Your task to perform on an android device: check battery use Image 0: 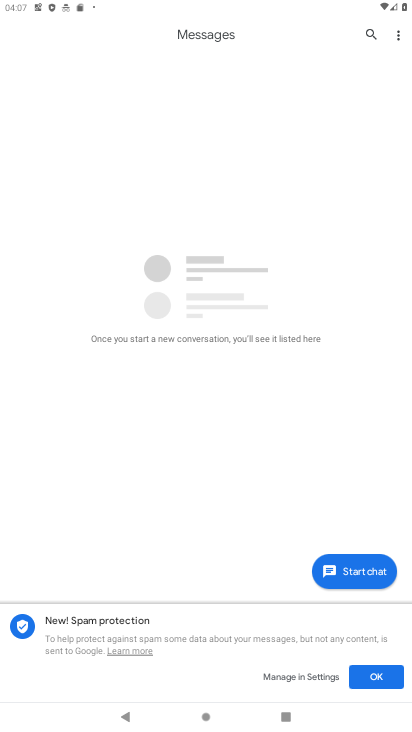
Step 0: press home button
Your task to perform on an android device: check battery use Image 1: 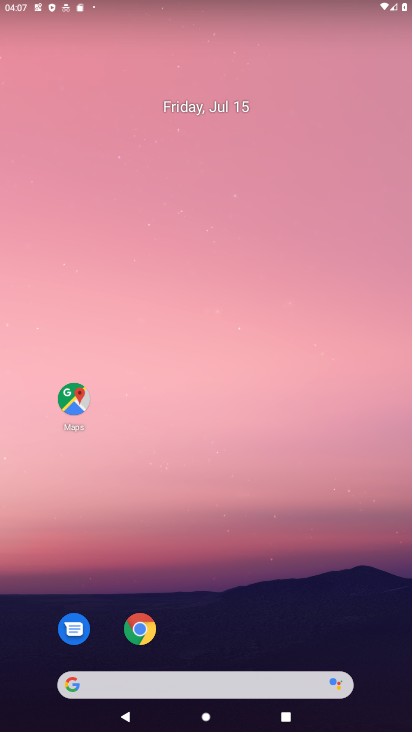
Step 1: drag from (258, 621) to (239, 4)
Your task to perform on an android device: check battery use Image 2: 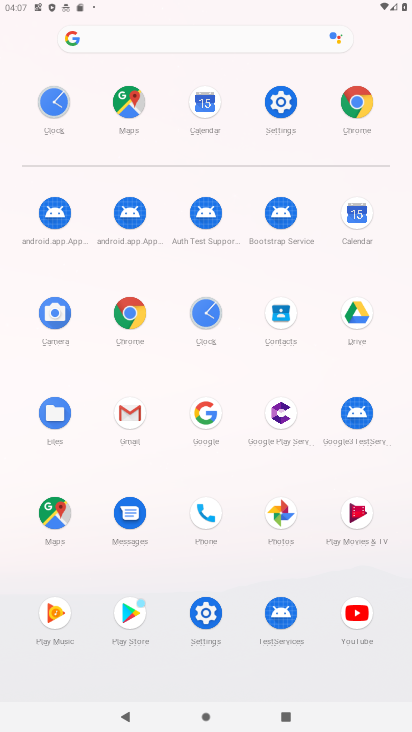
Step 2: click (212, 610)
Your task to perform on an android device: check battery use Image 3: 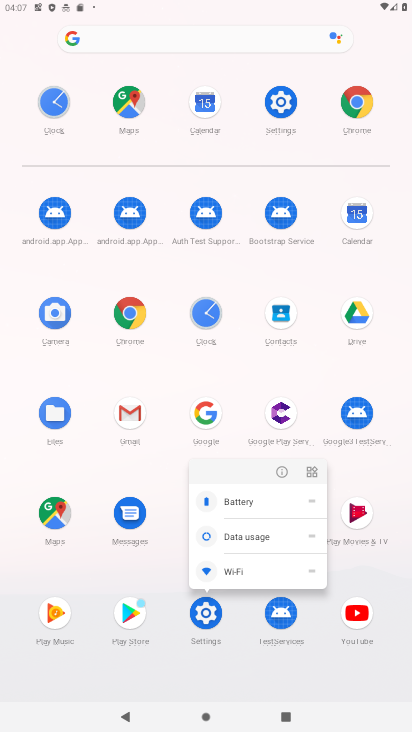
Step 3: click (193, 610)
Your task to perform on an android device: check battery use Image 4: 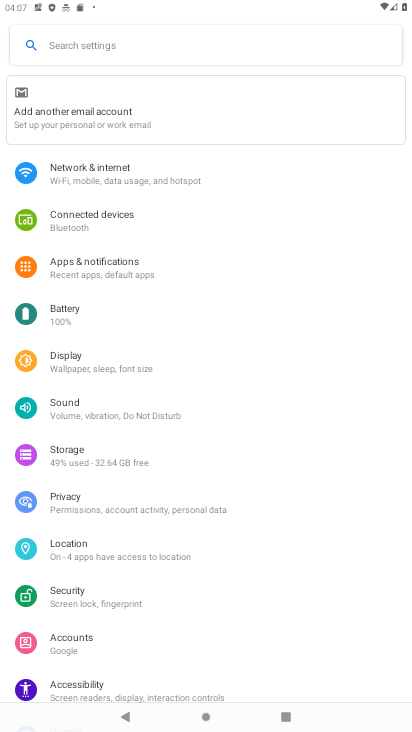
Step 4: click (60, 315)
Your task to perform on an android device: check battery use Image 5: 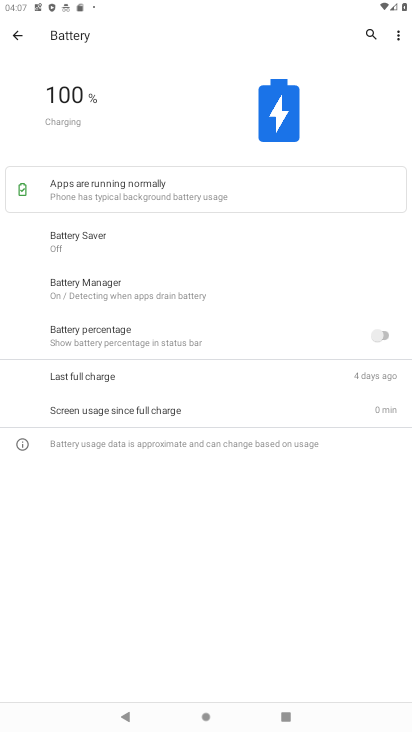
Step 5: task complete